Your task to perform on an android device: Open Maps and search for coffee Image 0: 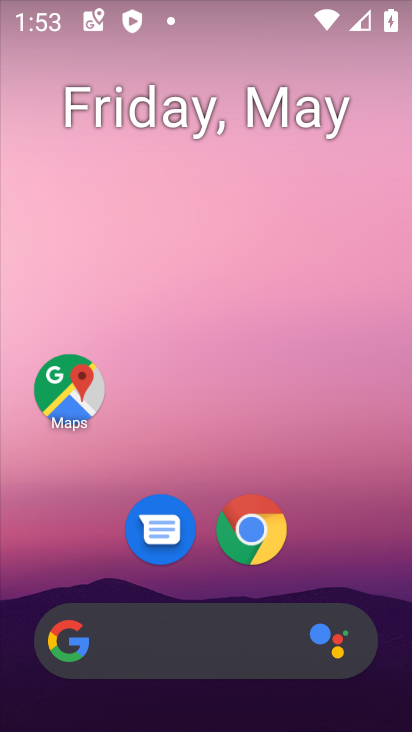
Step 0: drag from (318, 558) to (270, 138)
Your task to perform on an android device: Open Maps and search for coffee Image 1: 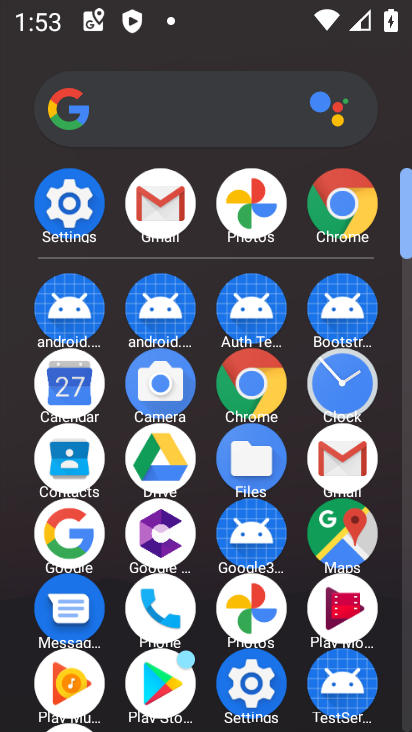
Step 1: click (167, 678)
Your task to perform on an android device: Open Maps and search for coffee Image 2: 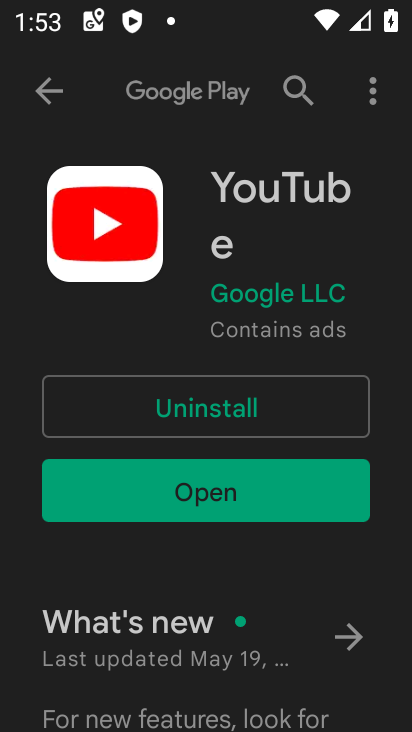
Step 2: click (43, 81)
Your task to perform on an android device: Open Maps and search for coffee Image 3: 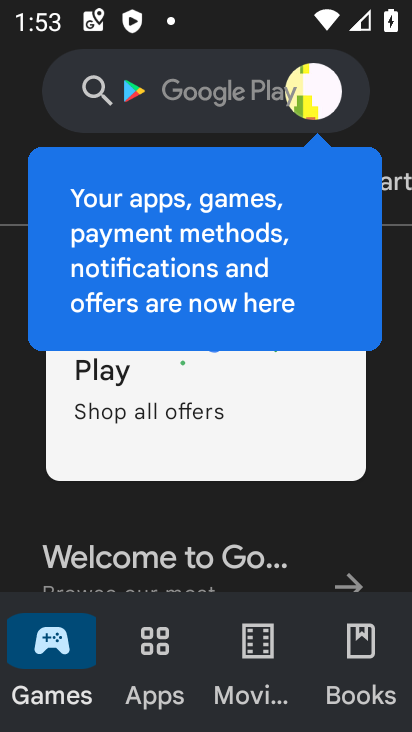
Step 3: press home button
Your task to perform on an android device: Open Maps and search for coffee Image 4: 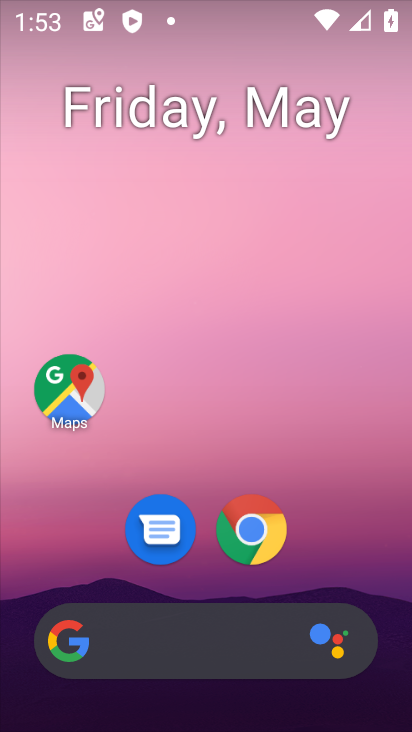
Step 4: click (60, 416)
Your task to perform on an android device: Open Maps and search for coffee Image 5: 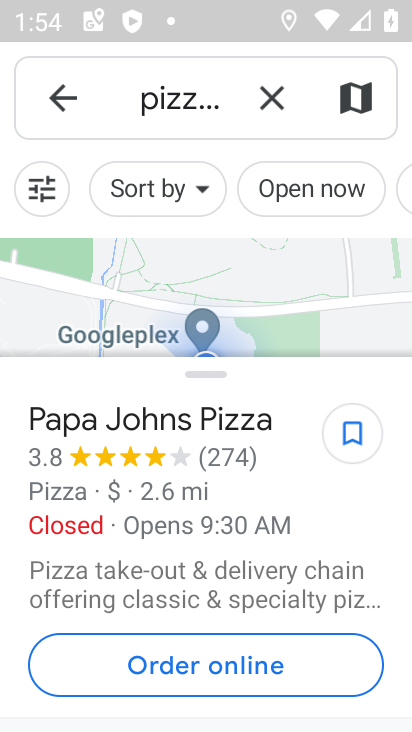
Step 5: click (264, 104)
Your task to perform on an android device: Open Maps and search for coffee Image 6: 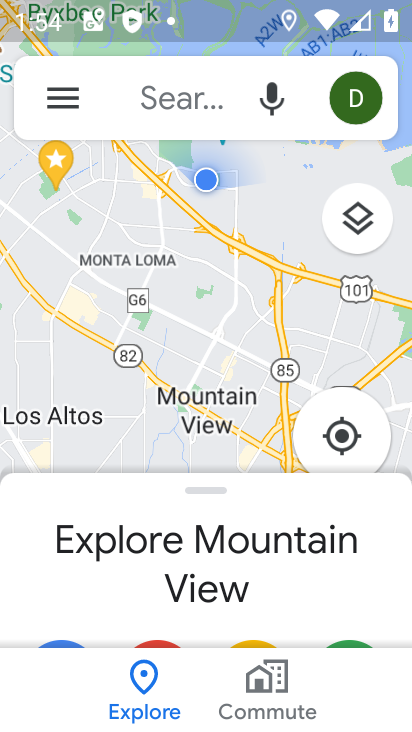
Step 6: click (180, 99)
Your task to perform on an android device: Open Maps and search for coffee Image 7: 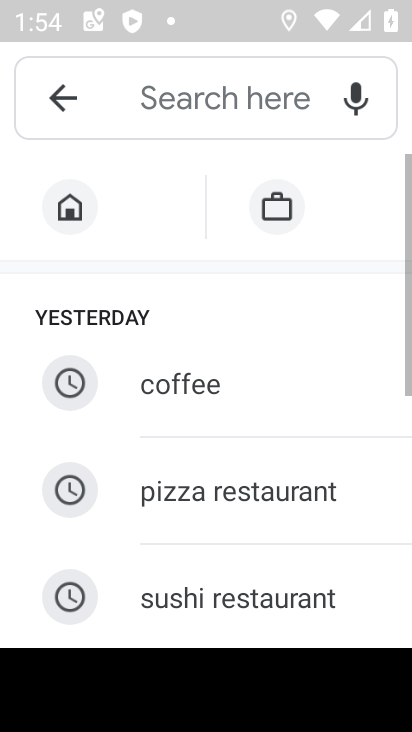
Step 7: click (244, 391)
Your task to perform on an android device: Open Maps and search for coffee Image 8: 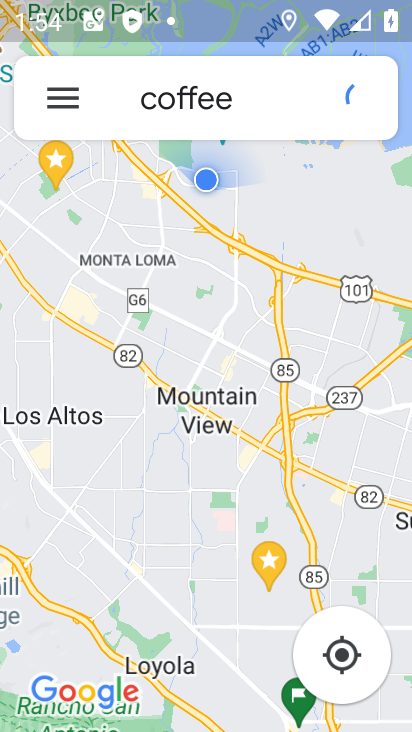
Step 8: task complete